Your task to perform on an android device: See recent photos Image 0: 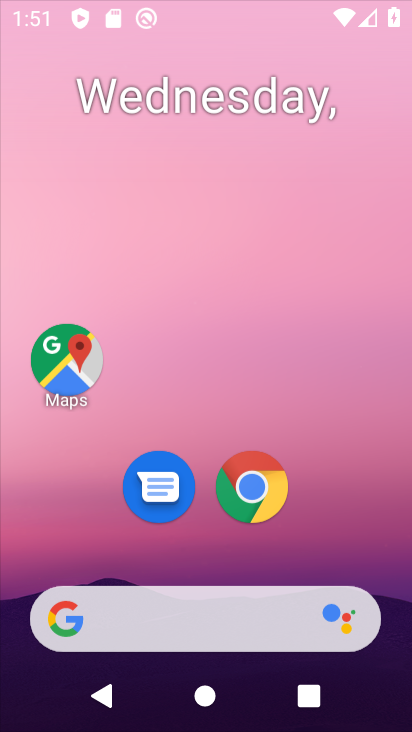
Step 0: drag from (301, 341) to (254, 189)
Your task to perform on an android device: See recent photos Image 1: 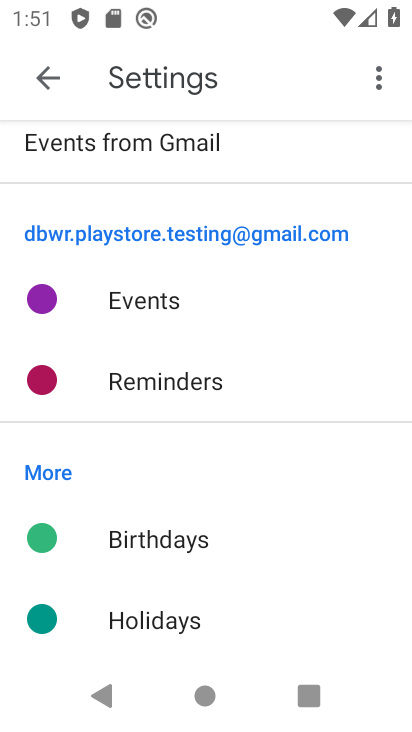
Step 1: press home button
Your task to perform on an android device: See recent photos Image 2: 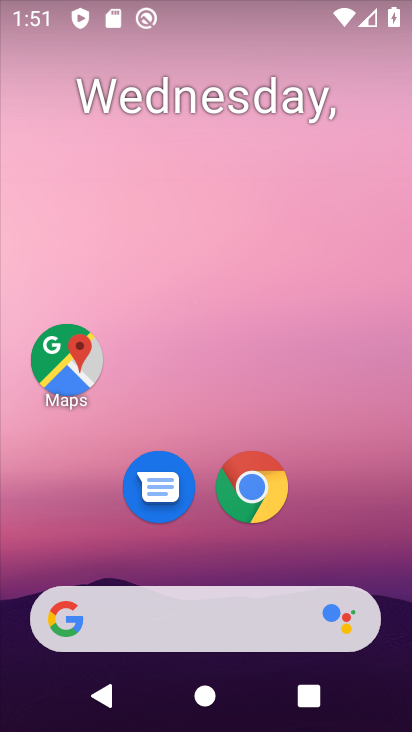
Step 2: drag from (335, 546) to (215, 186)
Your task to perform on an android device: See recent photos Image 3: 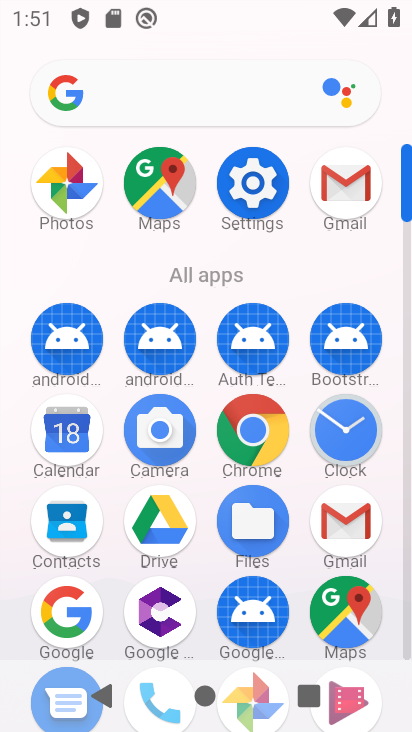
Step 3: click (57, 175)
Your task to perform on an android device: See recent photos Image 4: 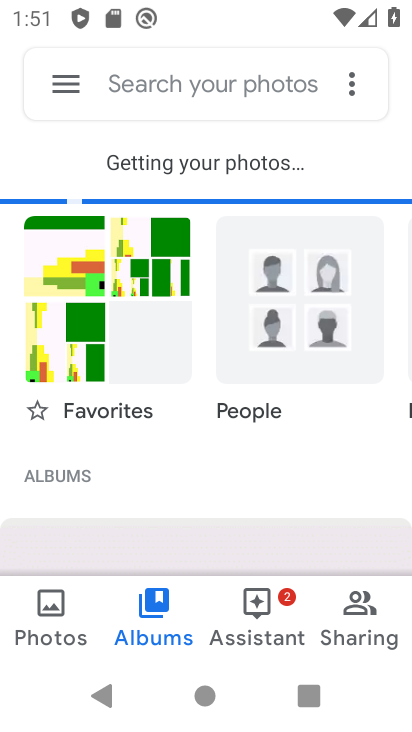
Step 4: click (54, 618)
Your task to perform on an android device: See recent photos Image 5: 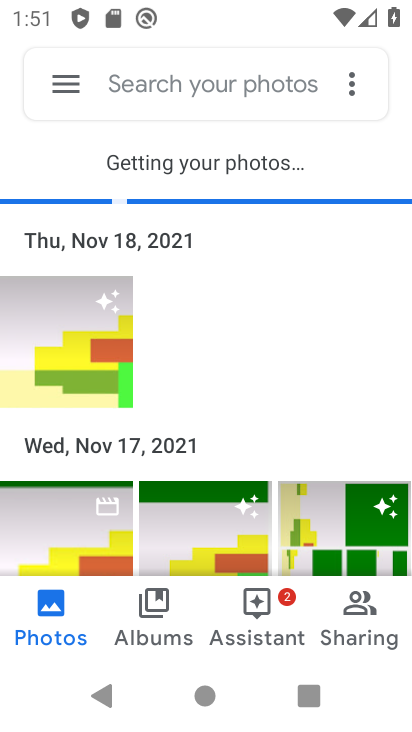
Step 5: task complete